Your task to perform on an android device: Open Yahoo.com Image 0: 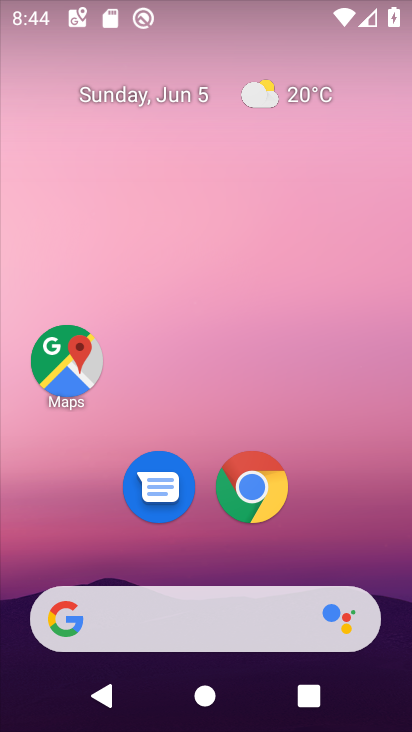
Step 0: click (247, 476)
Your task to perform on an android device: Open Yahoo.com Image 1: 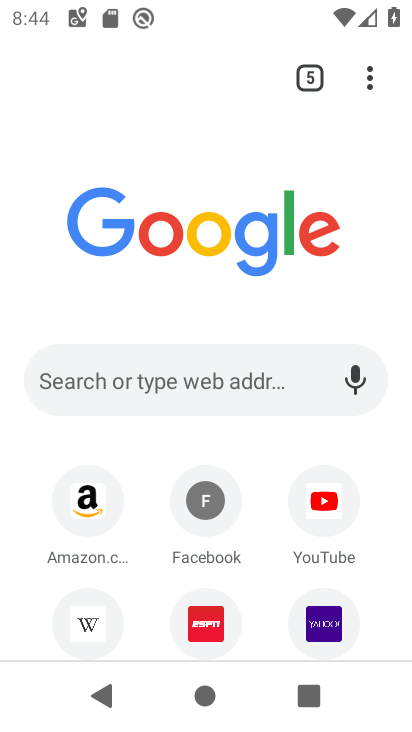
Step 1: click (311, 609)
Your task to perform on an android device: Open Yahoo.com Image 2: 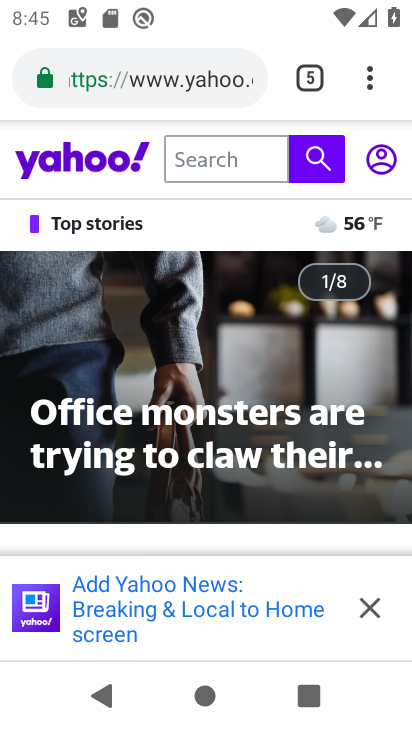
Step 2: task complete